Your task to perform on an android device: Open CNN.com Image 0: 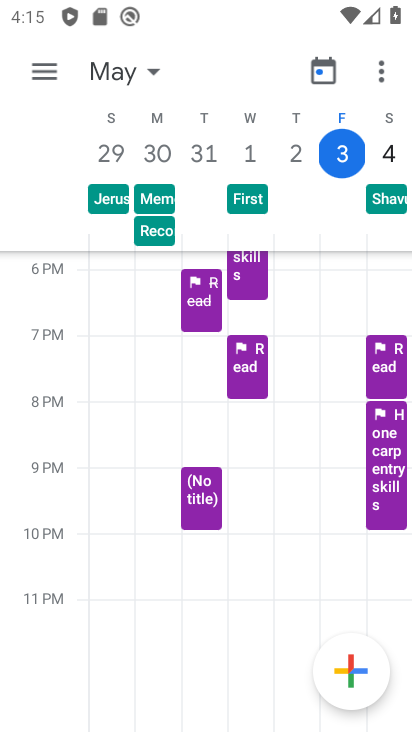
Step 0: press home button
Your task to perform on an android device: Open CNN.com Image 1: 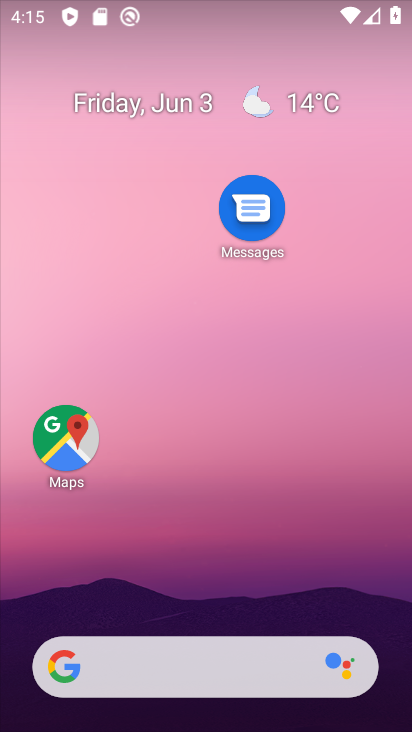
Step 1: drag from (228, 586) to (215, 172)
Your task to perform on an android device: Open CNN.com Image 2: 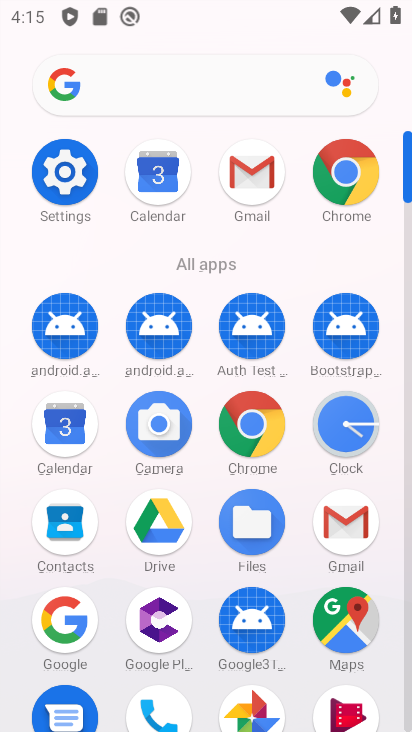
Step 2: click (344, 183)
Your task to perform on an android device: Open CNN.com Image 3: 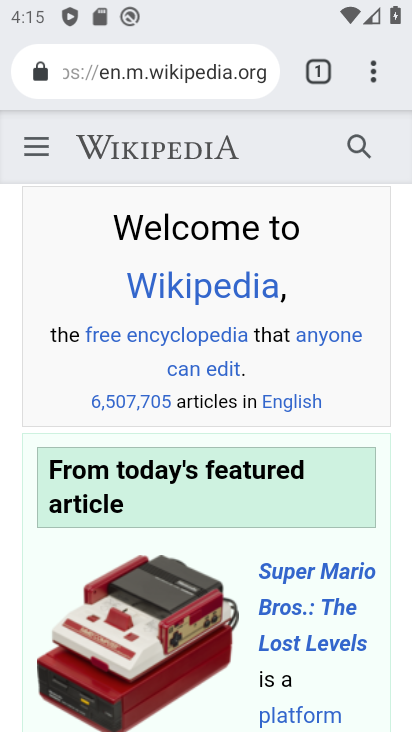
Step 3: click (190, 85)
Your task to perform on an android device: Open CNN.com Image 4: 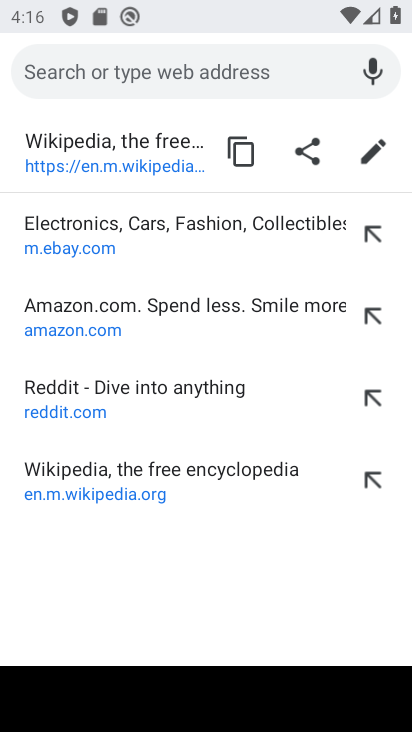
Step 4: type "www.cnn.com"
Your task to perform on an android device: Open CNN.com Image 5: 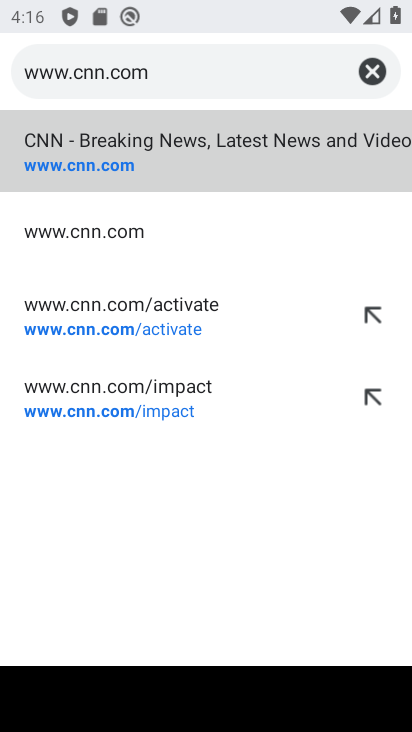
Step 5: click (84, 157)
Your task to perform on an android device: Open CNN.com Image 6: 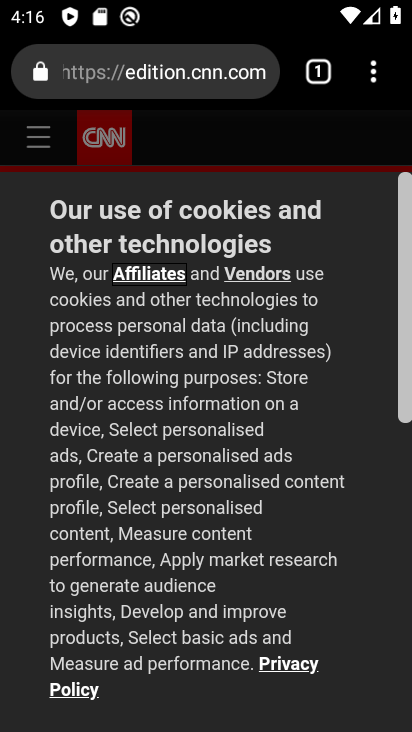
Step 6: task complete